Your task to perform on an android device: turn on location history Image 0: 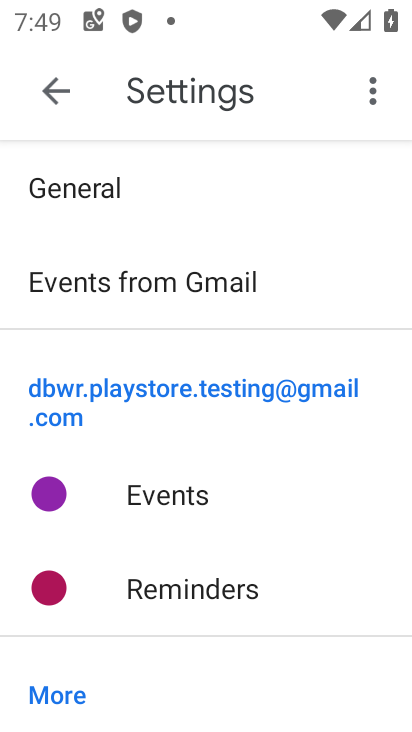
Step 0: press home button
Your task to perform on an android device: turn on location history Image 1: 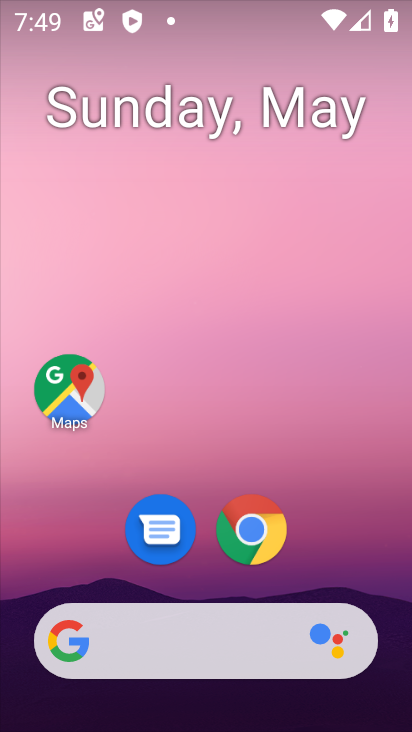
Step 1: click (72, 389)
Your task to perform on an android device: turn on location history Image 2: 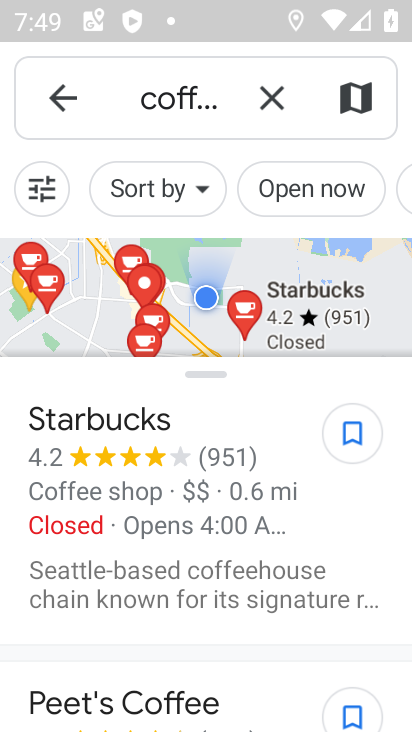
Step 2: click (282, 104)
Your task to perform on an android device: turn on location history Image 3: 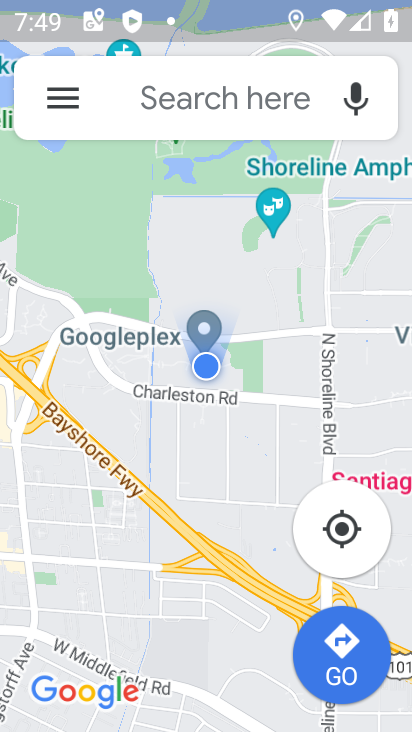
Step 3: click (57, 107)
Your task to perform on an android device: turn on location history Image 4: 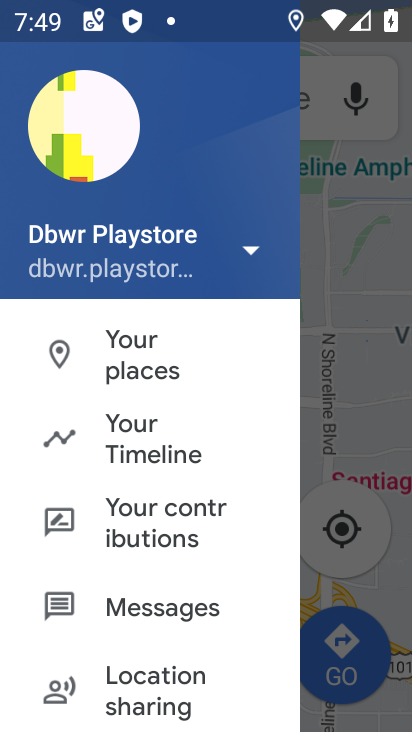
Step 4: click (143, 451)
Your task to perform on an android device: turn on location history Image 5: 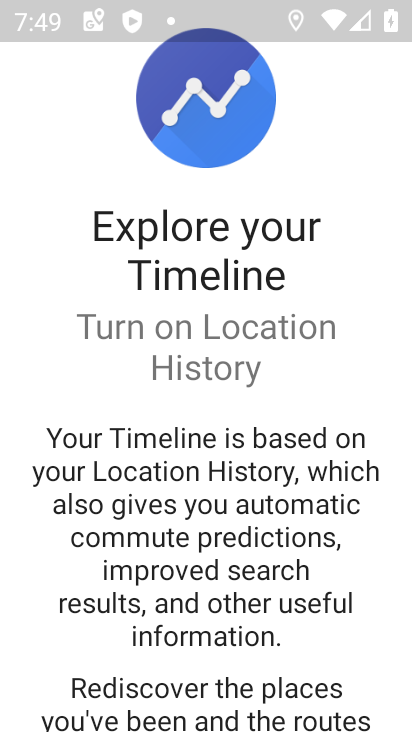
Step 5: drag from (337, 621) to (351, 31)
Your task to perform on an android device: turn on location history Image 6: 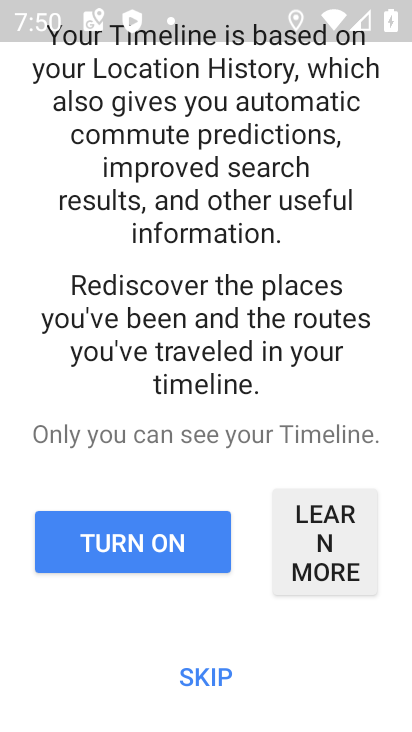
Step 6: click (214, 679)
Your task to perform on an android device: turn on location history Image 7: 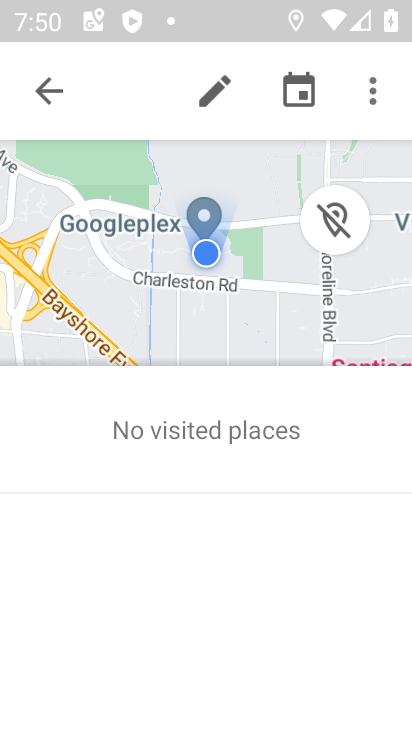
Step 7: click (374, 92)
Your task to perform on an android device: turn on location history Image 8: 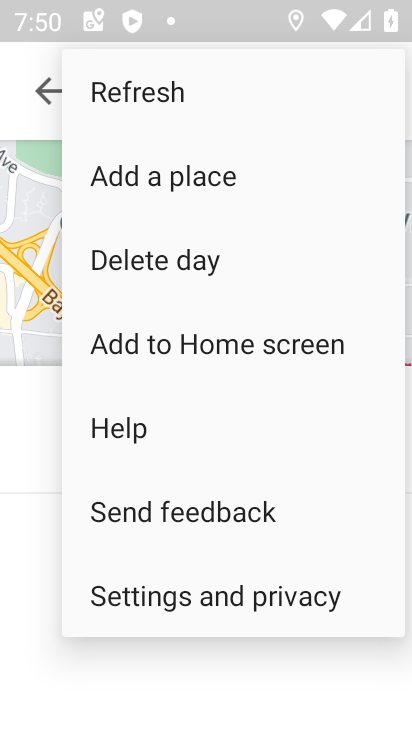
Step 8: click (202, 602)
Your task to perform on an android device: turn on location history Image 9: 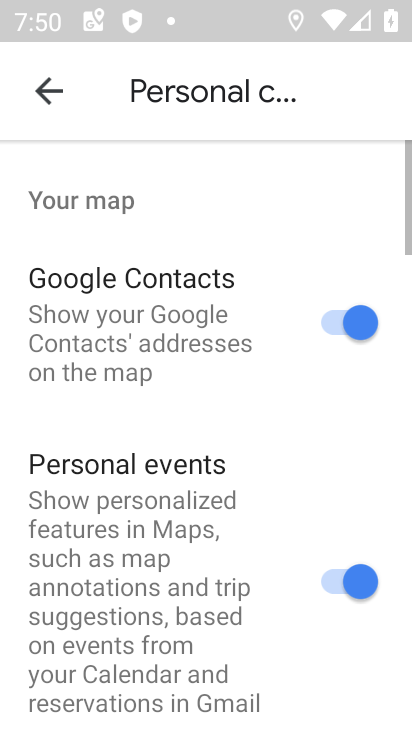
Step 9: drag from (196, 625) to (230, 40)
Your task to perform on an android device: turn on location history Image 10: 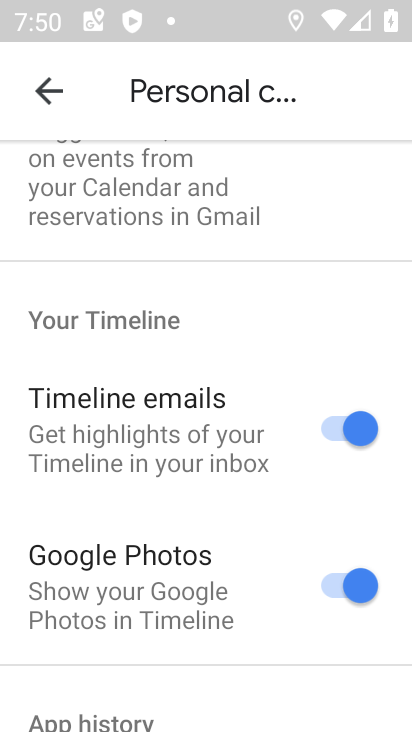
Step 10: drag from (165, 605) to (162, 122)
Your task to perform on an android device: turn on location history Image 11: 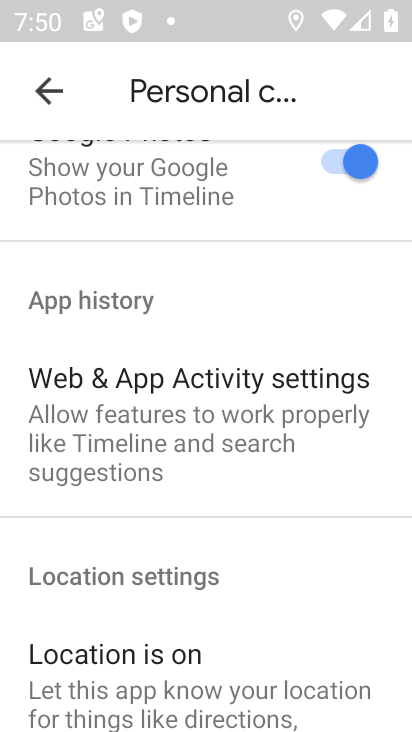
Step 11: drag from (170, 634) to (154, 139)
Your task to perform on an android device: turn on location history Image 12: 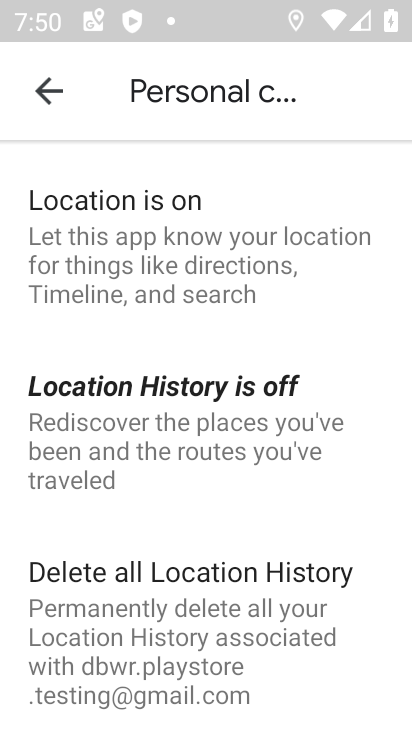
Step 12: click (151, 413)
Your task to perform on an android device: turn on location history Image 13: 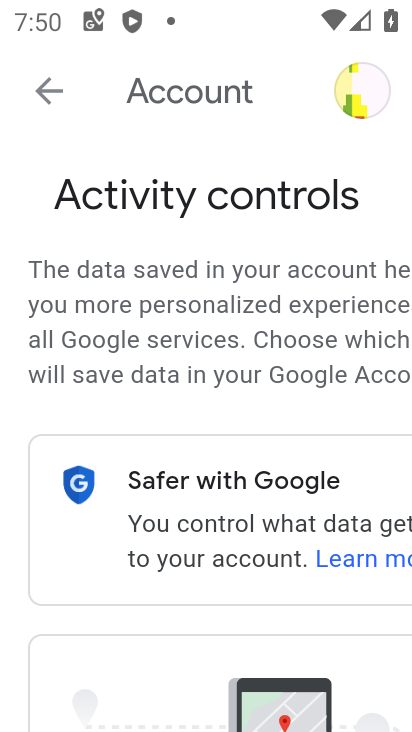
Step 13: task complete